Your task to perform on an android device: delete the emails in spam in the gmail app Image 0: 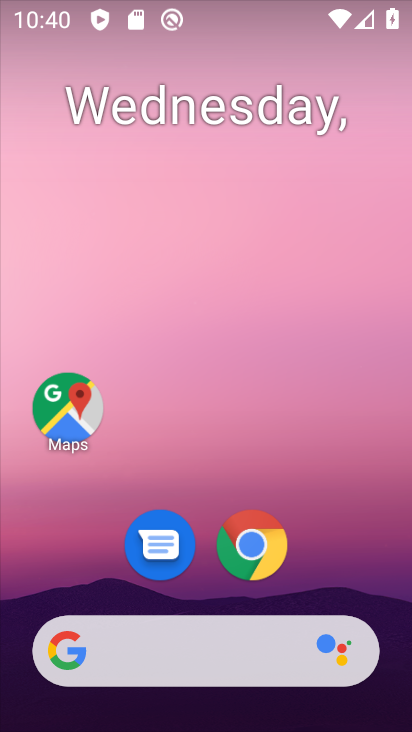
Step 0: drag from (180, 629) to (198, 65)
Your task to perform on an android device: delete the emails in spam in the gmail app Image 1: 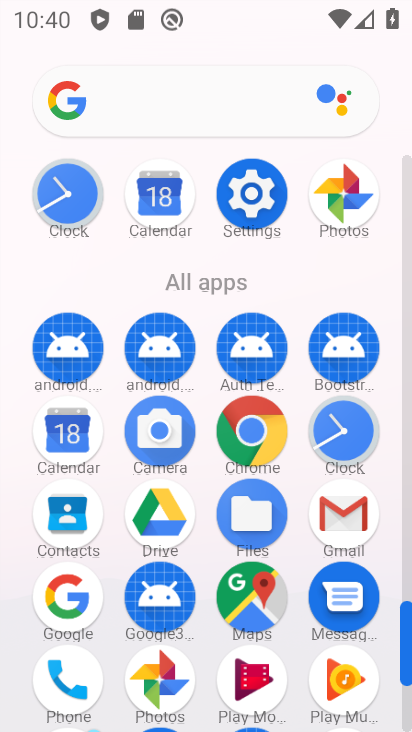
Step 1: click (369, 509)
Your task to perform on an android device: delete the emails in spam in the gmail app Image 2: 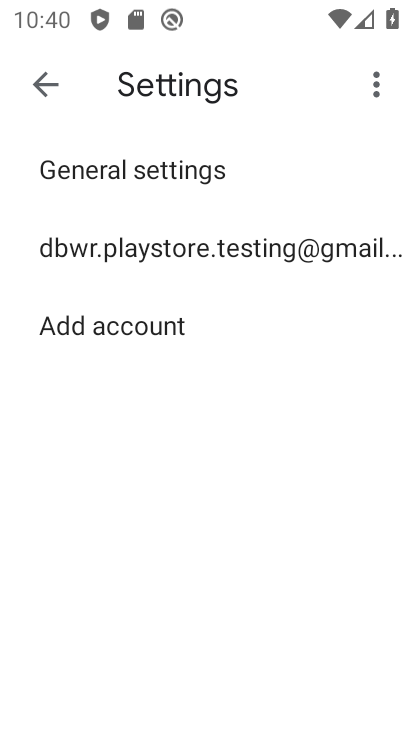
Step 2: click (290, 256)
Your task to perform on an android device: delete the emails in spam in the gmail app Image 3: 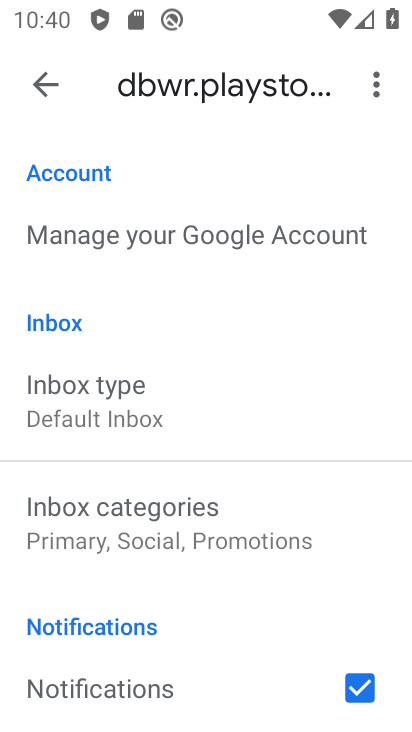
Step 3: drag from (236, 641) to (226, 199)
Your task to perform on an android device: delete the emails in spam in the gmail app Image 4: 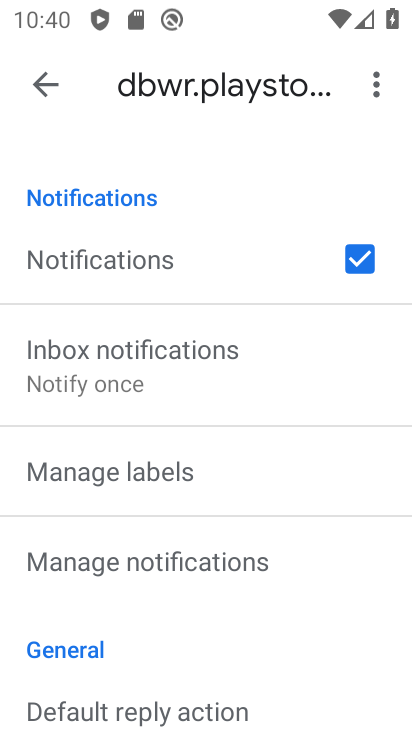
Step 4: click (49, 88)
Your task to perform on an android device: delete the emails in spam in the gmail app Image 5: 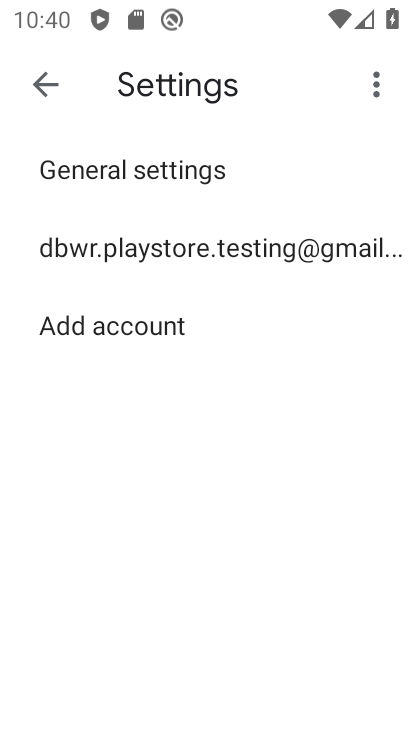
Step 5: click (49, 88)
Your task to perform on an android device: delete the emails in spam in the gmail app Image 6: 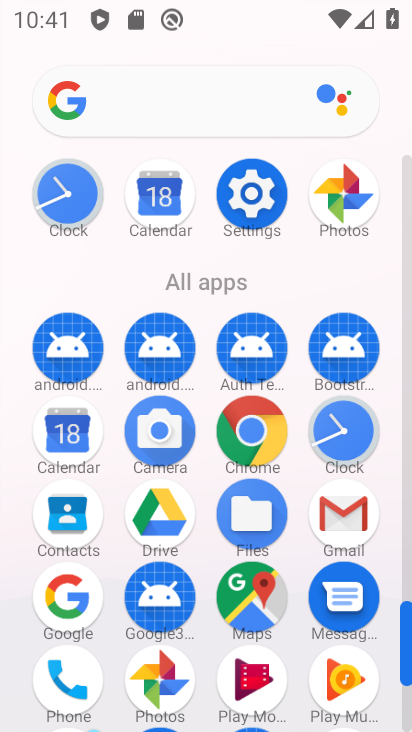
Step 6: click (351, 523)
Your task to perform on an android device: delete the emails in spam in the gmail app Image 7: 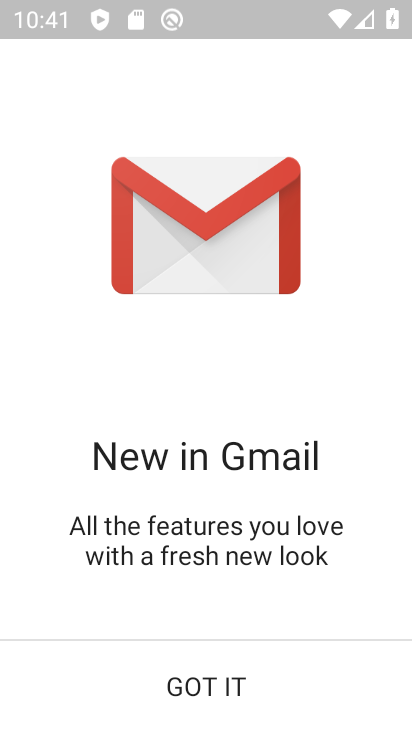
Step 7: click (269, 666)
Your task to perform on an android device: delete the emails in spam in the gmail app Image 8: 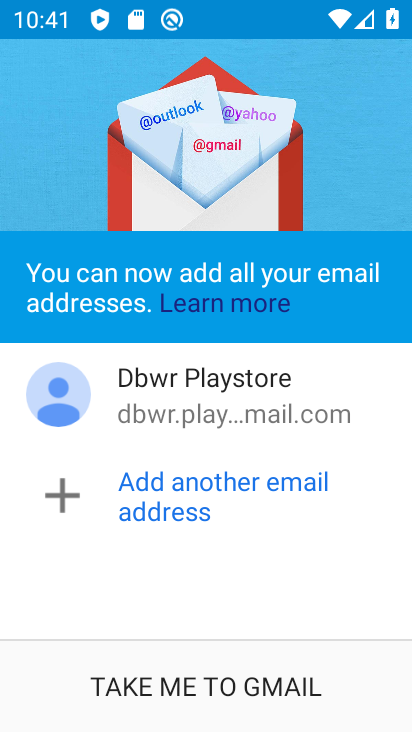
Step 8: click (299, 690)
Your task to perform on an android device: delete the emails in spam in the gmail app Image 9: 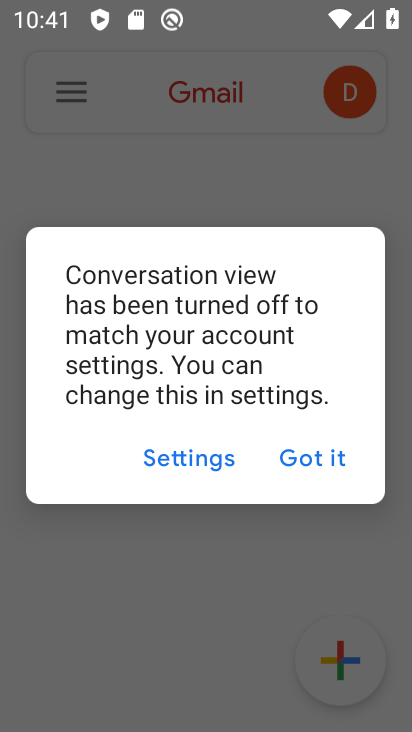
Step 9: click (291, 451)
Your task to perform on an android device: delete the emails in spam in the gmail app Image 10: 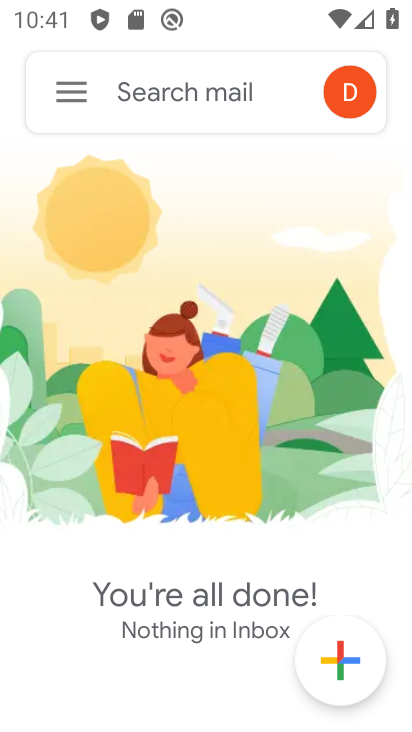
Step 10: task complete